Your task to perform on an android device: turn off picture-in-picture Image 0: 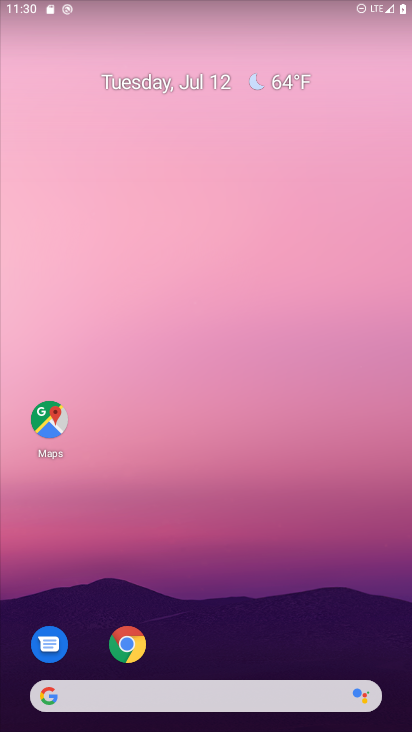
Step 0: drag from (300, 643) to (249, 70)
Your task to perform on an android device: turn off picture-in-picture Image 1: 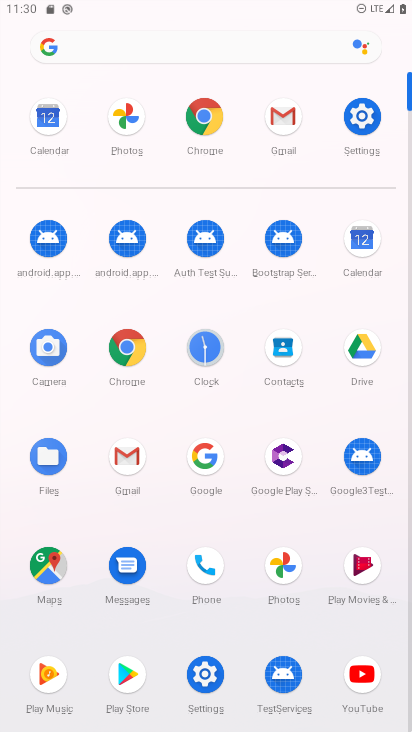
Step 1: click (350, 121)
Your task to perform on an android device: turn off picture-in-picture Image 2: 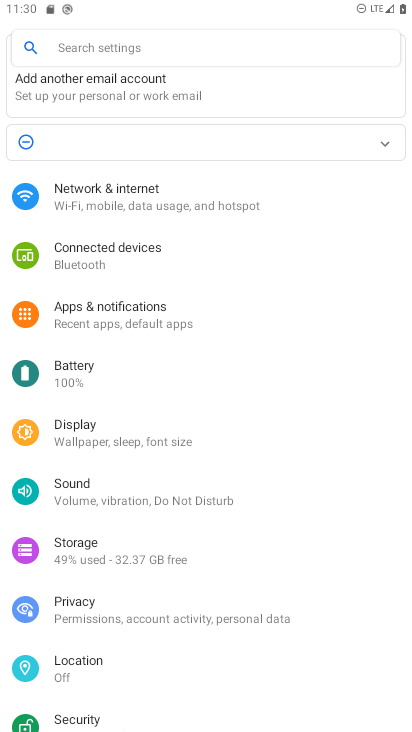
Step 2: drag from (152, 655) to (187, 106)
Your task to perform on an android device: turn off picture-in-picture Image 3: 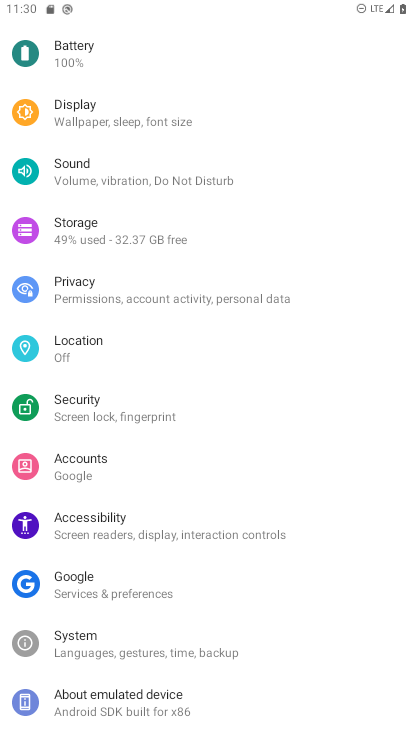
Step 3: drag from (145, 221) to (125, 422)
Your task to perform on an android device: turn off picture-in-picture Image 4: 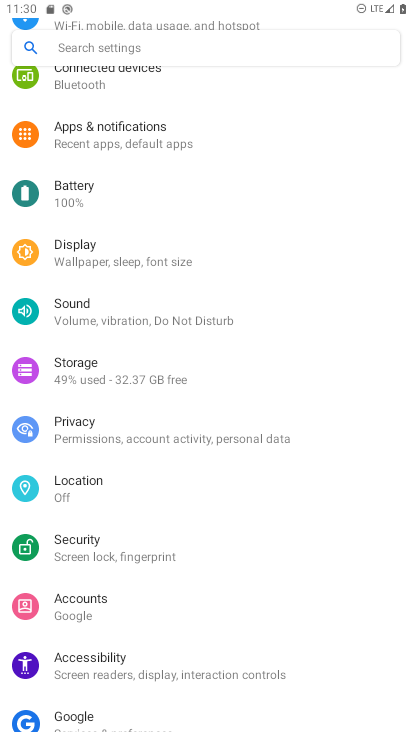
Step 4: click (126, 150)
Your task to perform on an android device: turn off picture-in-picture Image 5: 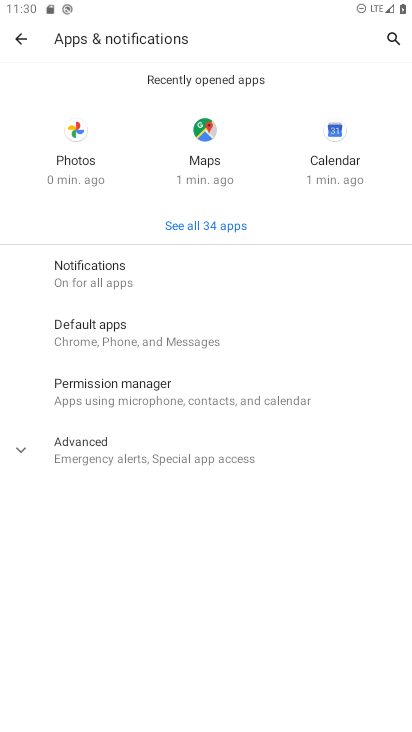
Step 5: click (188, 461)
Your task to perform on an android device: turn off picture-in-picture Image 6: 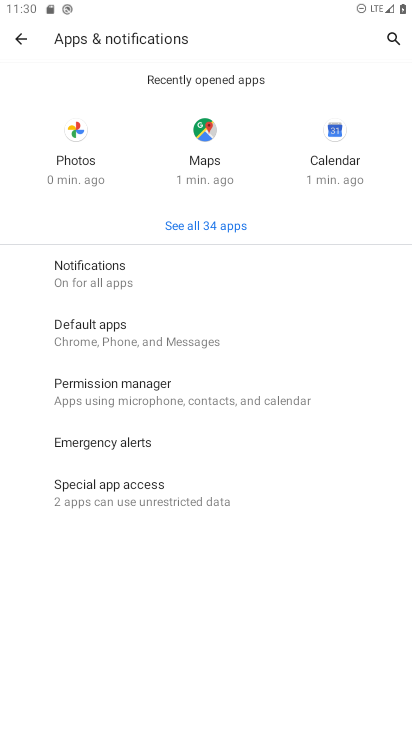
Step 6: click (132, 285)
Your task to perform on an android device: turn off picture-in-picture Image 7: 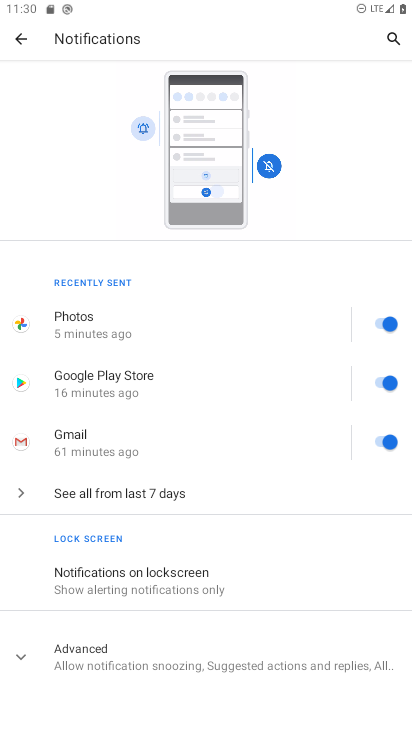
Step 7: click (97, 649)
Your task to perform on an android device: turn off picture-in-picture Image 8: 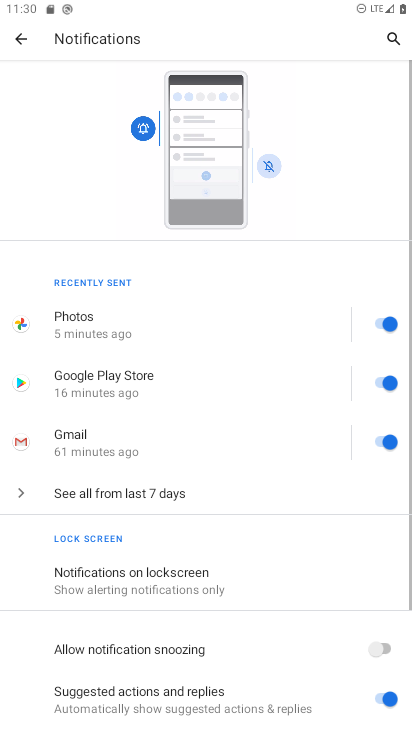
Step 8: task complete